Your task to perform on an android device: allow notifications from all sites in the chrome app Image 0: 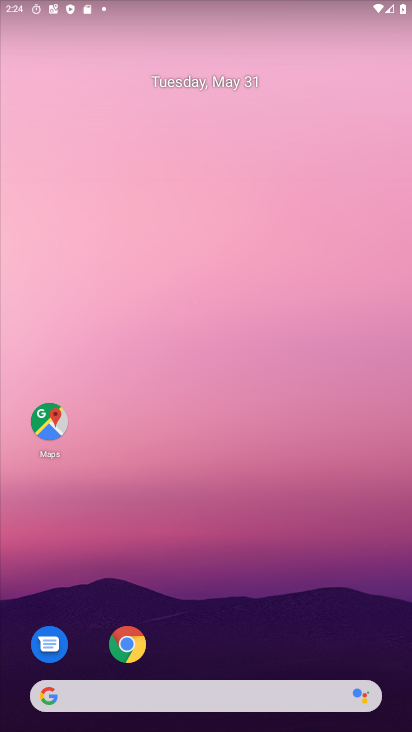
Step 0: click (129, 640)
Your task to perform on an android device: allow notifications from all sites in the chrome app Image 1: 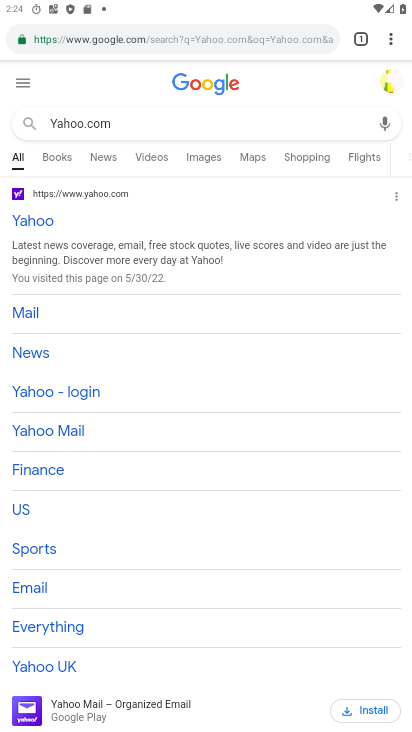
Step 1: click (390, 39)
Your task to perform on an android device: allow notifications from all sites in the chrome app Image 2: 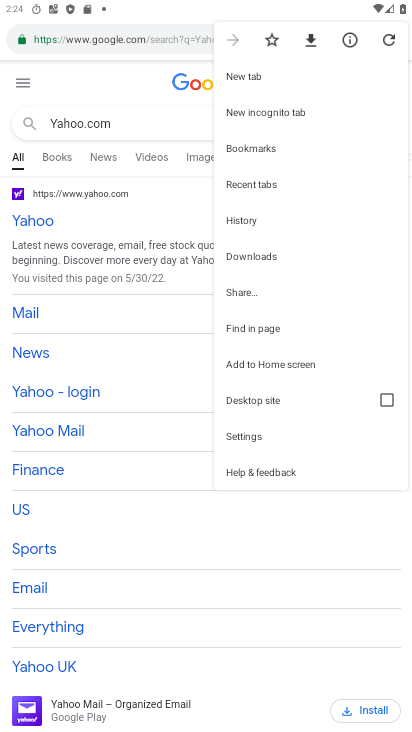
Step 2: click (243, 437)
Your task to perform on an android device: allow notifications from all sites in the chrome app Image 3: 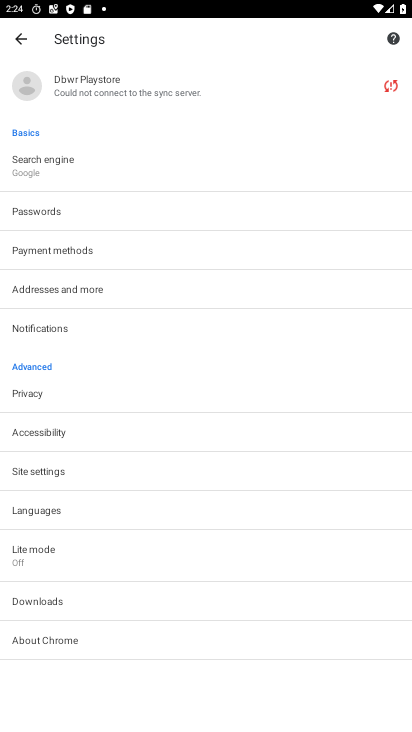
Step 3: click (25, 467)
Your task to perform on an android device: allow notifications from all sites in the chrome app Image 4: 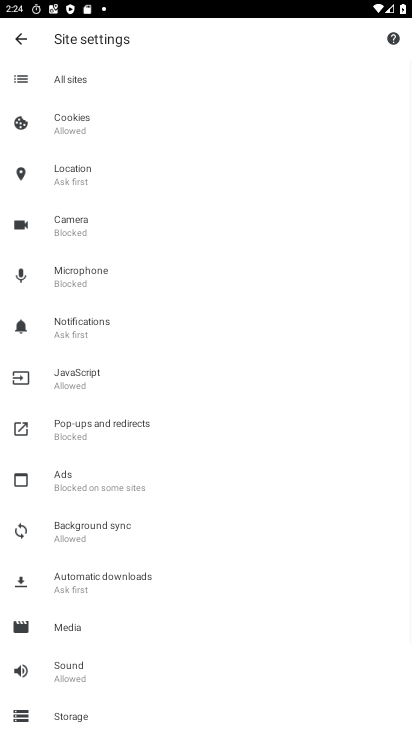
Step 4: click (86, 321)
Your task to perform on an android device: allow notifications from all sites in the chrome app Image 5: 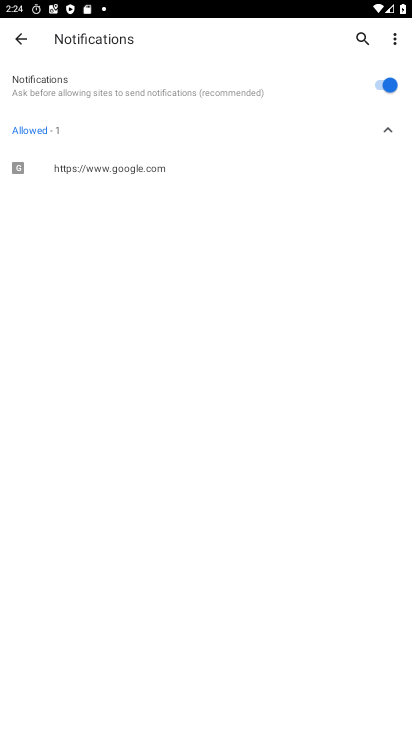
Step 5: task complete